Your task to perform on an android device: Open Chrome and go to the settings page Image 0: 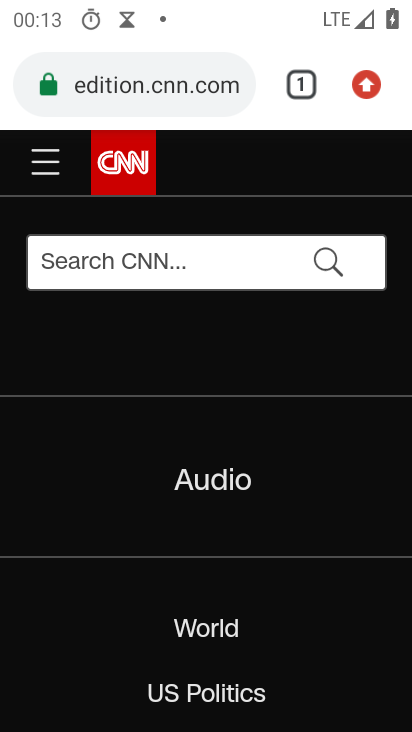
Step 0: click (378, 82)
Your task to perform on an android device: Open Chrome and go to the settings page Image 1: 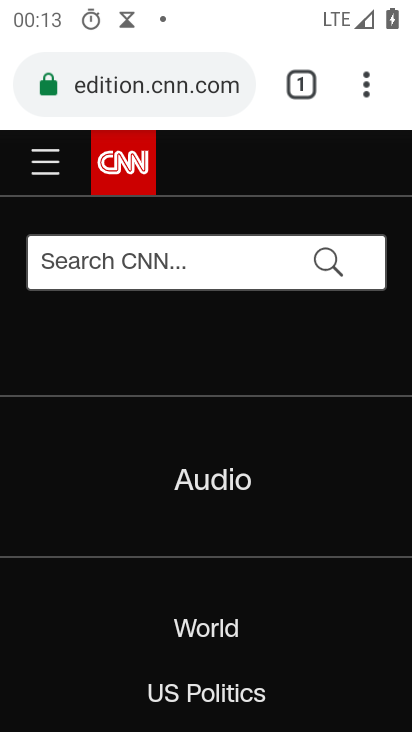
Step 1: click (377, 72)
Your task to perform on an android device: Open Chrome and go to the settings page Image 2: 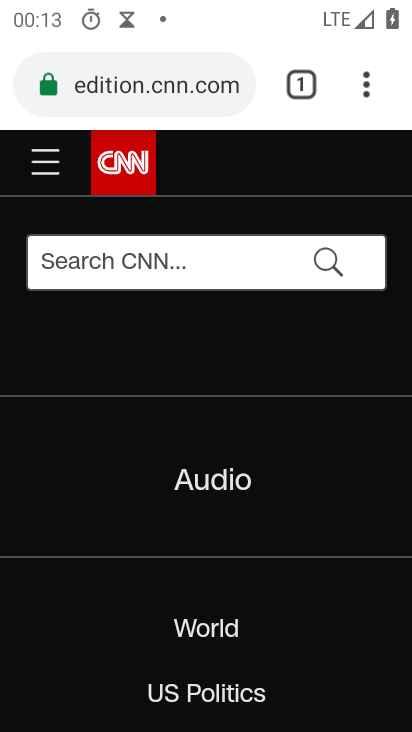
Step 2: click (378, 76)
Your task to perform on an android device: Open Chrome and go to the settings page Image 3: 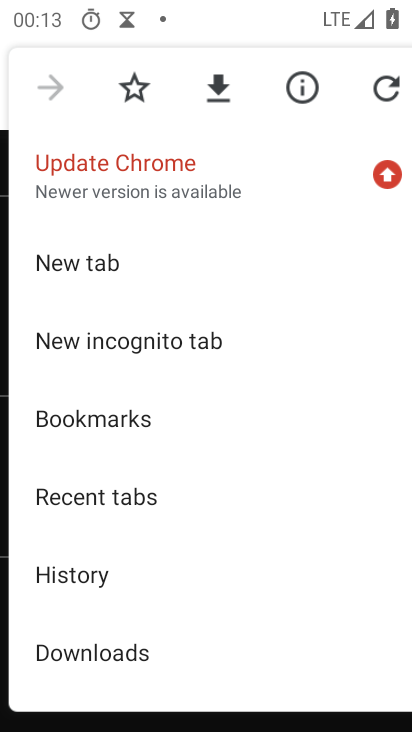
Step 3: drag from (215, 568) to (230, 495)
Your task to perform on an android device: Open Chrome and go to the settings page Image 4: 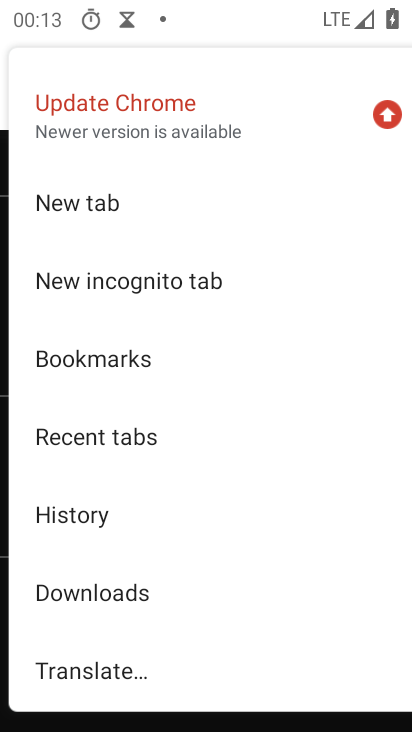
Step 4: drag from (197, 586) to (202, 500)
Your task to perform on an android device: Open Chrome and go to the settings page Image 5: 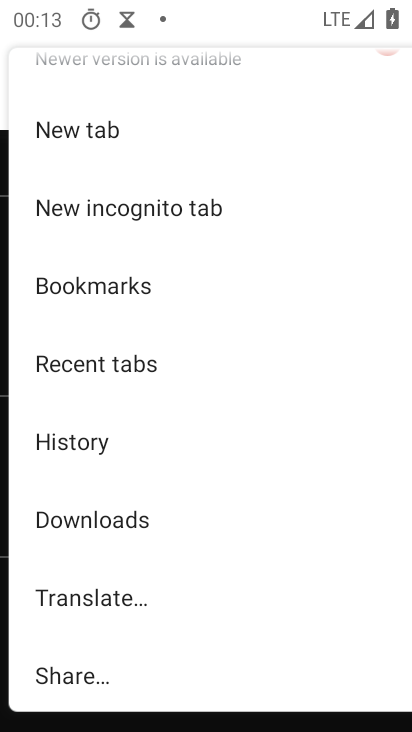
Step 5: drag from (175, 593) to (177, 530)
Your task to perform on an android device: Open Chrome and go to the settings page Image 6: 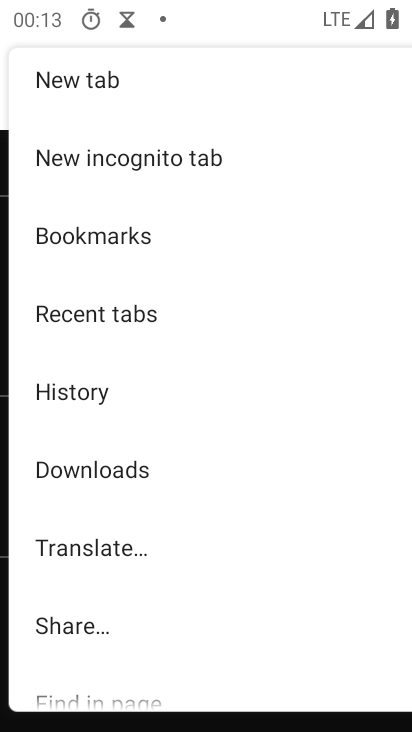
Step 6: drag from (183, 560) to (185, 492)
Your task to perform on an android device: Open Chrome and go to the settings page Image 7: 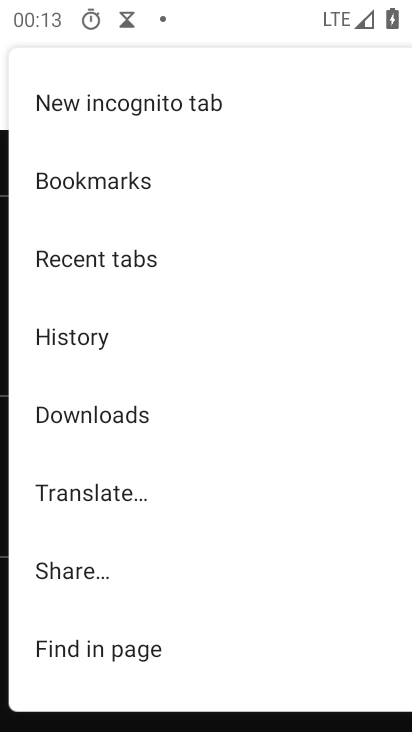
Step 7: drag from (177, 573) to (189, 492)
Your task to perform on an android device: Open Chrome and go to the settings page Image 8: 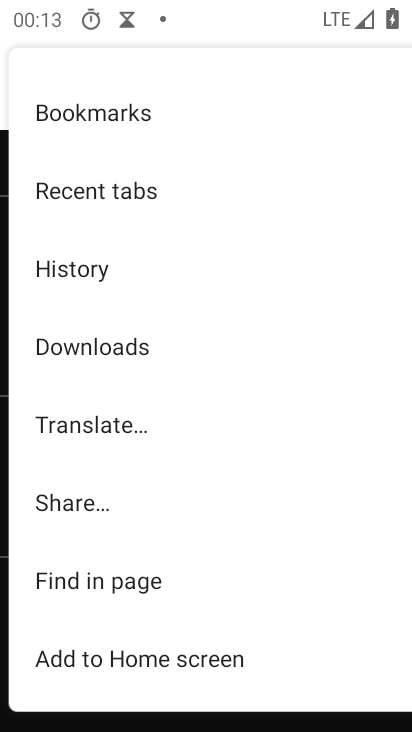
Step 8: drag from (184, 564) to (184, 513)
Your task to perform on an android device: Open Chrome and go to the settings page Image 9: 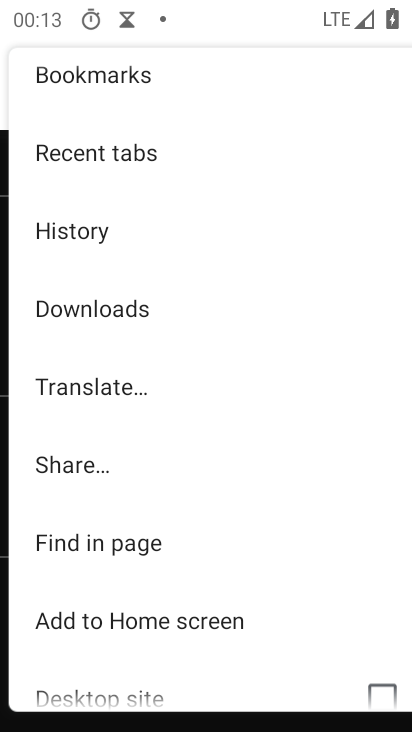
Step 9: drag from (182, 575) to (180, 519)
Your task to perform on an android device: Open Chrome and go to the settings page Image 10: 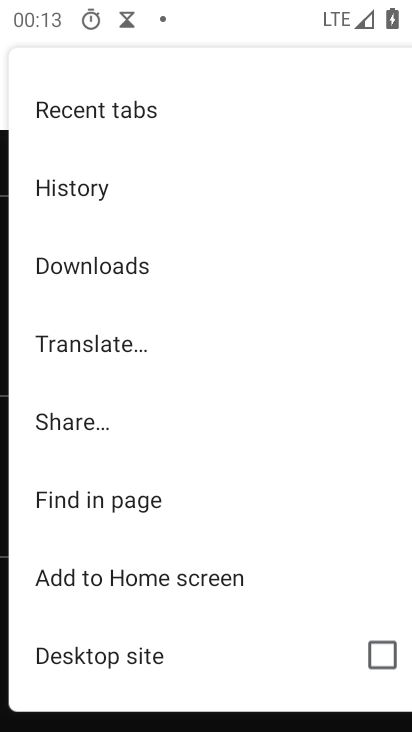
Step 10: drag from (173, 587) to (168, 523)
Your task to perform on an android device: Open Chrome and go to the settings page Image 11: 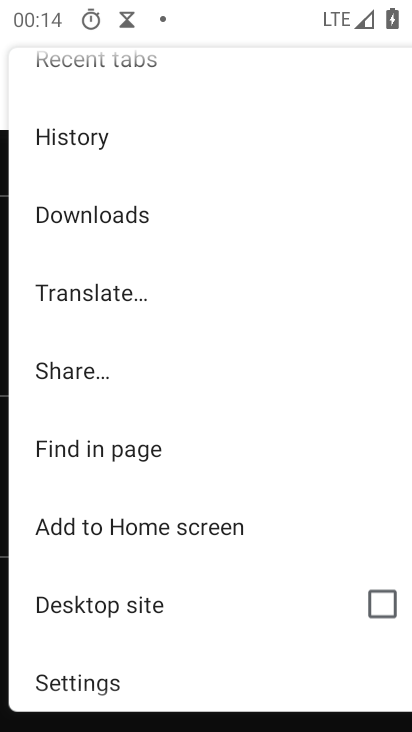
Step 11: drag from (175, 600) to (177, 537)
Your task to perform on an android device: Open Chrome and go to the settings page Image 12: 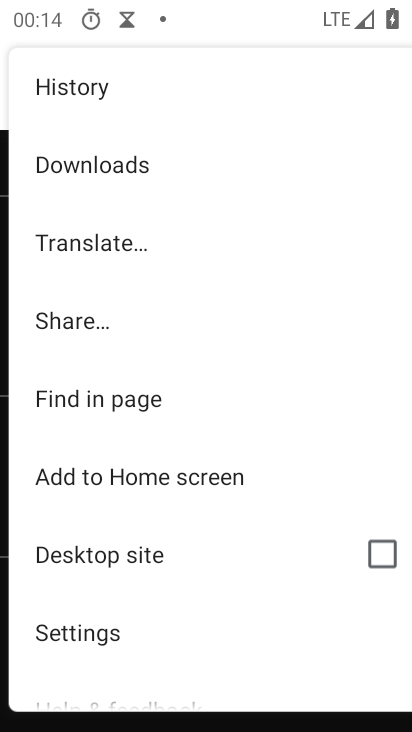
Step 12: click (160, 621)
Your task to perform on an android device: Open Chrome and go to the settings page Image 13: 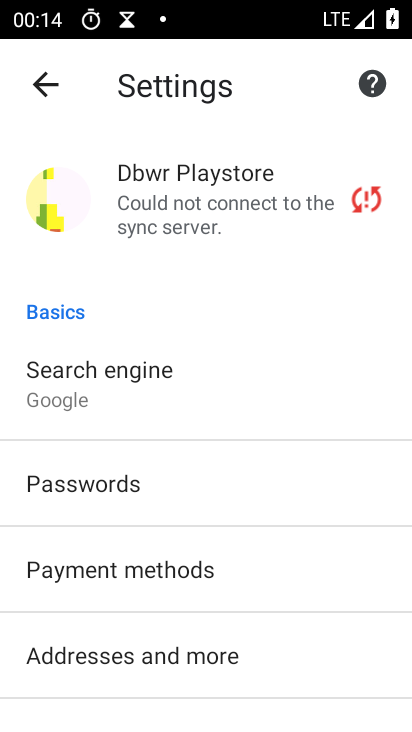
Step 13: task complete